Your task to perform on an android device: toggle javascript in the chrome app Image 0: 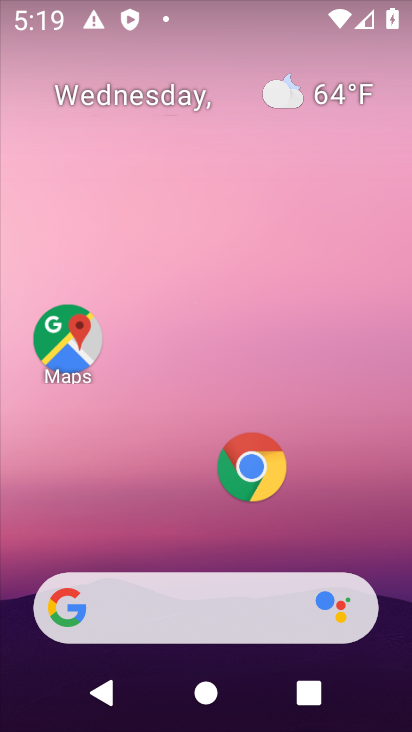
Step 0: click (252, 487)
Your task to perform on an android device: toggle javascript in the chrome app Image 1: 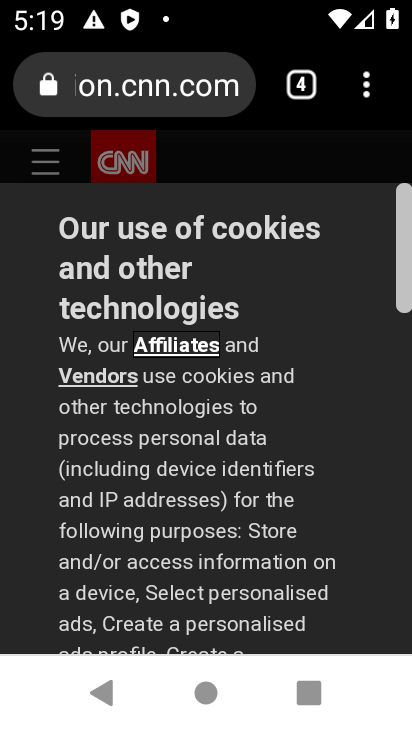
Step 1: task complete